Your task to perform on an android device: delete browsing data in the chrome app Image 0: 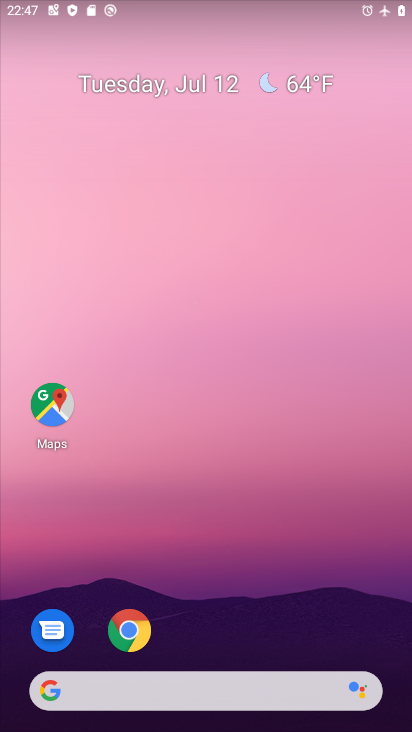
Step 0: drag from (240, 664) to (214, 75)
Your task to perform on an android device: delete browsing data in the chrome app Image 1: 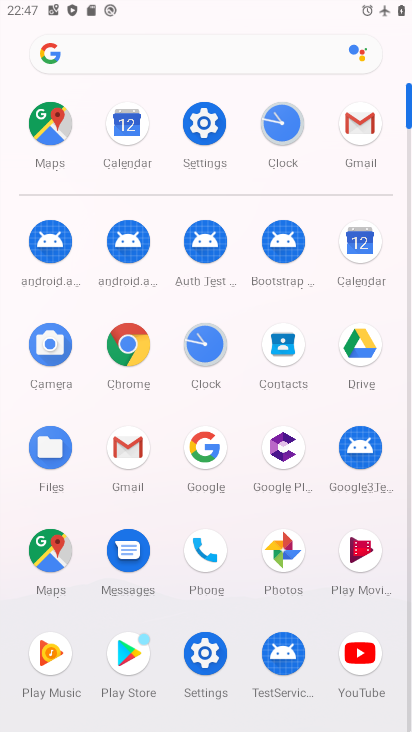
Step 1: click (127, 343)
Your task to perform on an android device: delete browsing data in the chrome app Image 2: 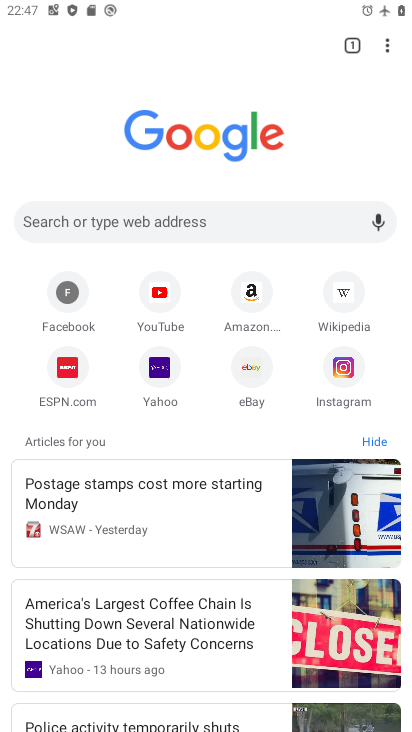
Step 2: click (393, 47)
Your task to perform on an android device: delete browsing data in the chrome app Image 3: 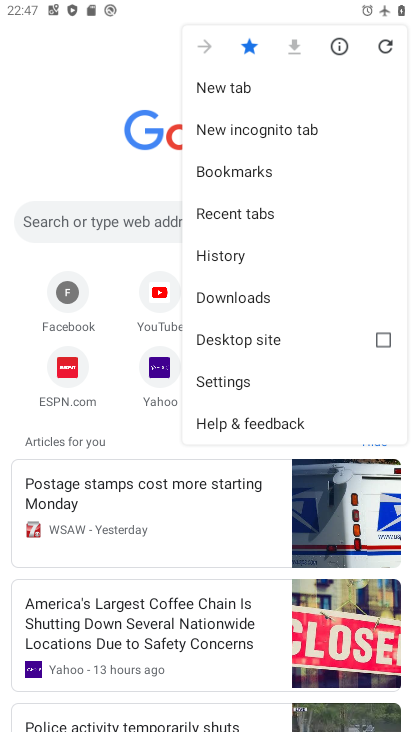
Step 3: click (225, 259)
Your task to perform on an android device: delete browsing data in the chrome app Image 4: 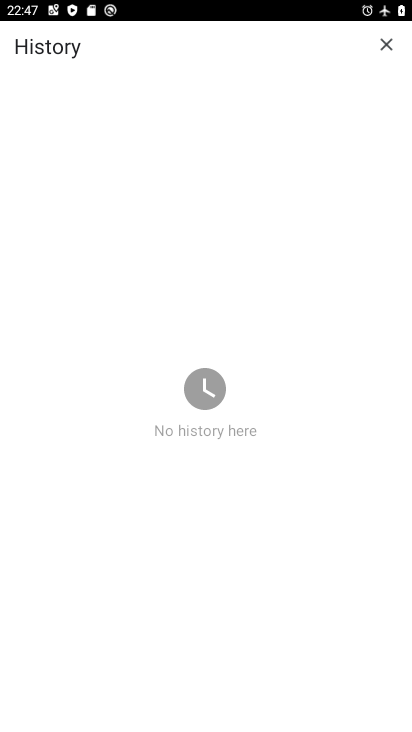
Step 4: task complete